Your task to perform on an android device: turn off notifications in google photos Image 0: 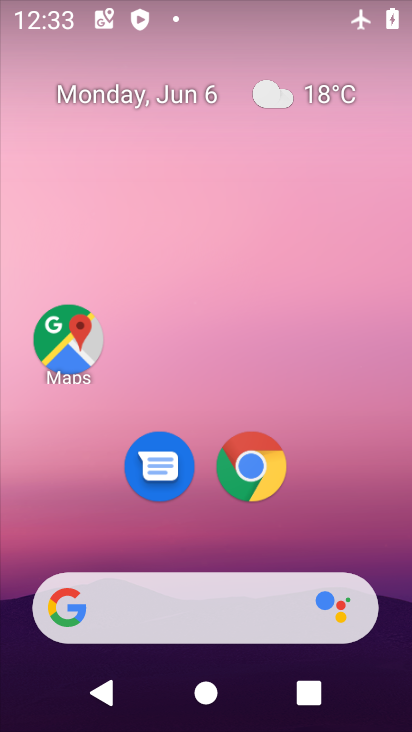
Step 0: drag from (357, 563) to (259, 15)
Your task to perform on an android device: turn off notifications in google photos Image 1: 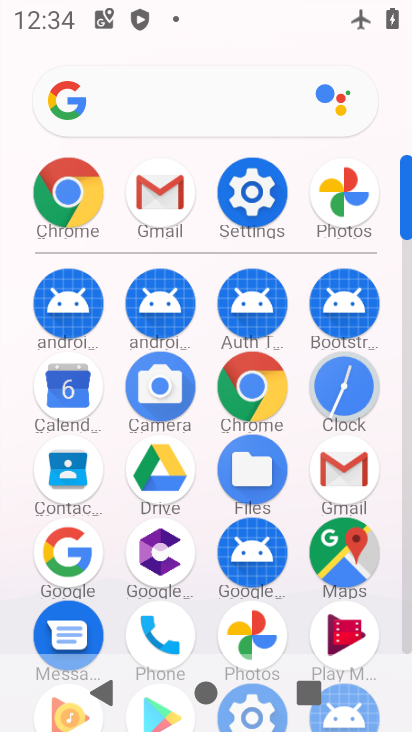
Step 1: click (254, 624)
Your task to perform on an android device: turn off notifications in google photos Image 2: 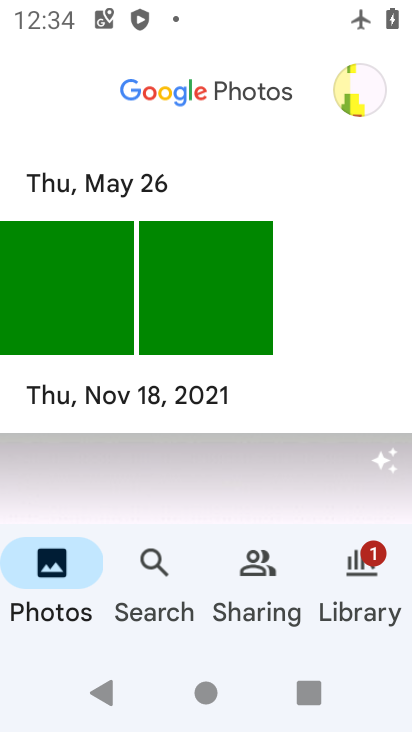
Step 2: click (366, 595)
Your task to perform on an android device: turn off notifications in google photos Image 3: 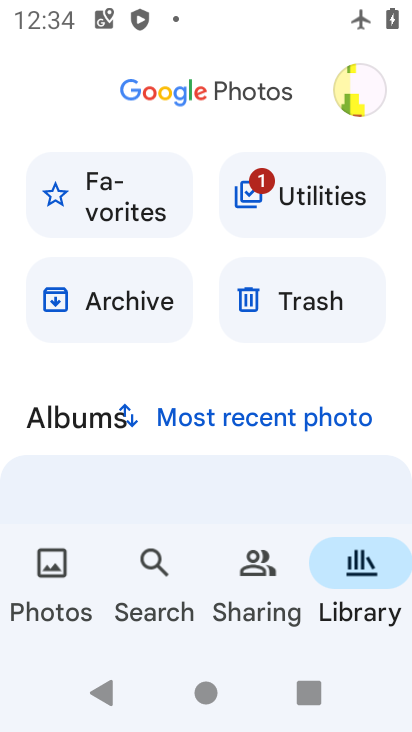
Step 3: click (358, 78)
Your task to perform on an android device: turn off notifications in google photos Image 4: 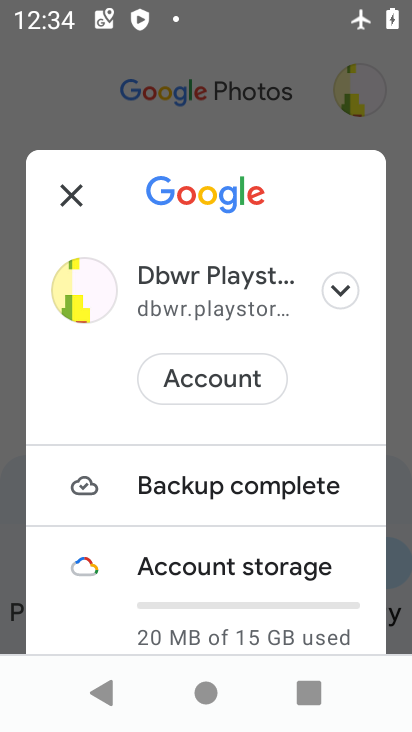
Step 4: drag from (291, 548) to (285, 214)
Your task to perform on an android device: turn off notifications in google photos Image 5: 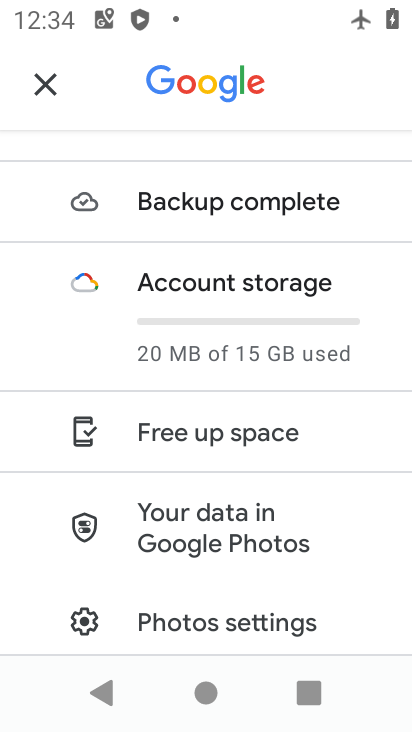
Step 5: drag from (220, 535) to (280, 239)
Your task to perform on an android device: turn off notifications in google photos Image 6: 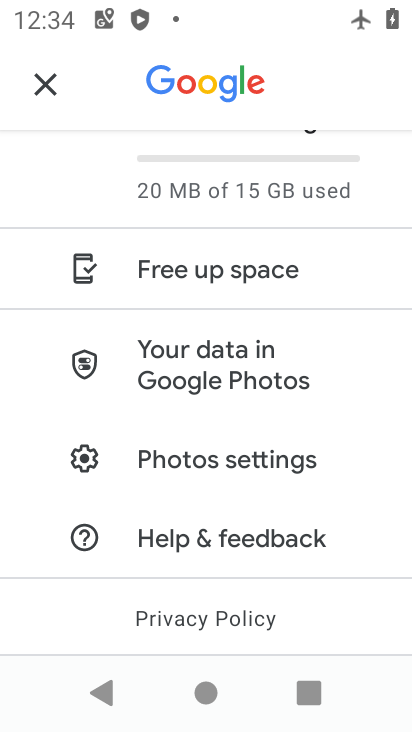
Step 6: click (212, 447)
Your task to perform on an android device: turn off notifications in google photos Image 7: 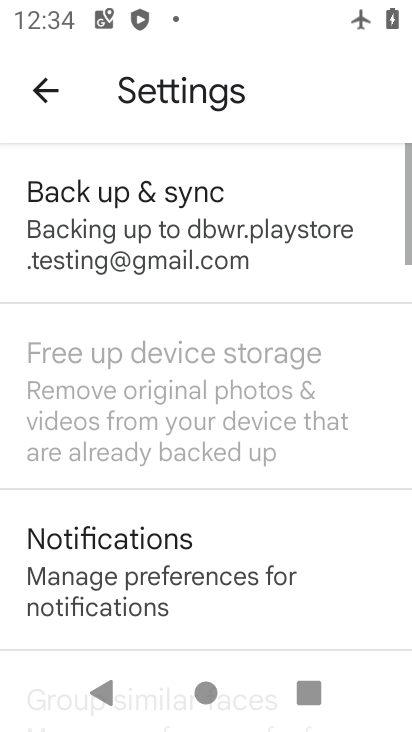
Step 7: click (238, 558)
Your task to perform on an android device: turn off notifications in google photos Image 8: 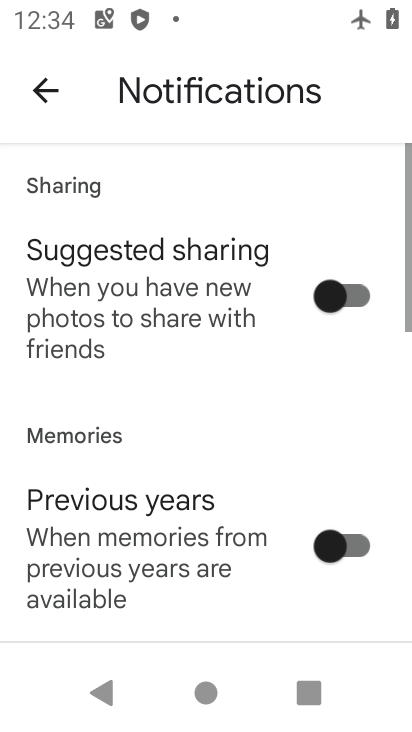
Step 8: drag from (237, 537) to (214, 109)
Your task to perform on an android device: turn off notifications in google photos Image 9: 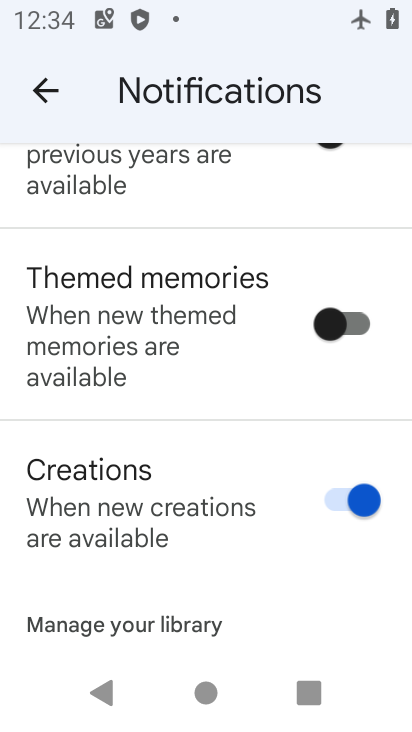
Step 9: drag from (161, 533) to (191, 167)
Your task to perform on an android device: turn off notifications in google photos Image 10: 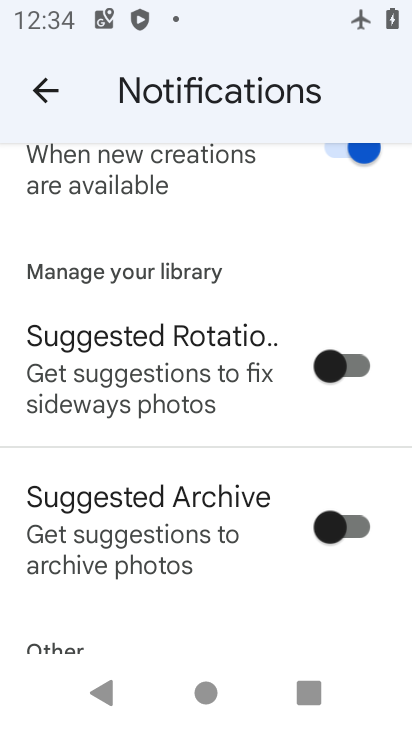
Step 10: drag from (147, 589) to (212, 184)
Your task to perform on an android device: turn off notifications in google photos Image 11: 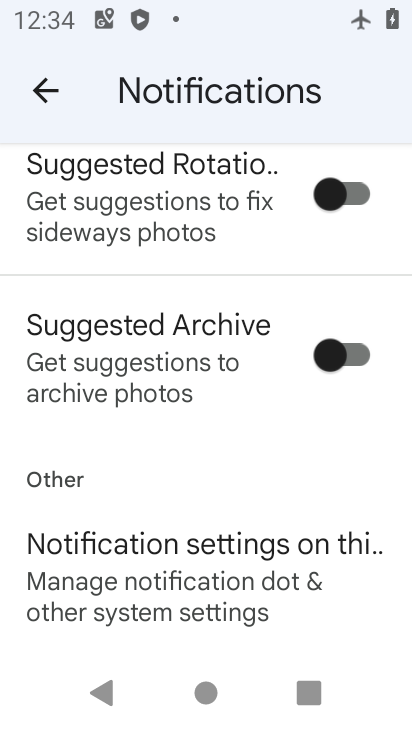
Step 11: click (169, 562)
Your task to perform on an android device: turn off notifications in google photos Image 12: 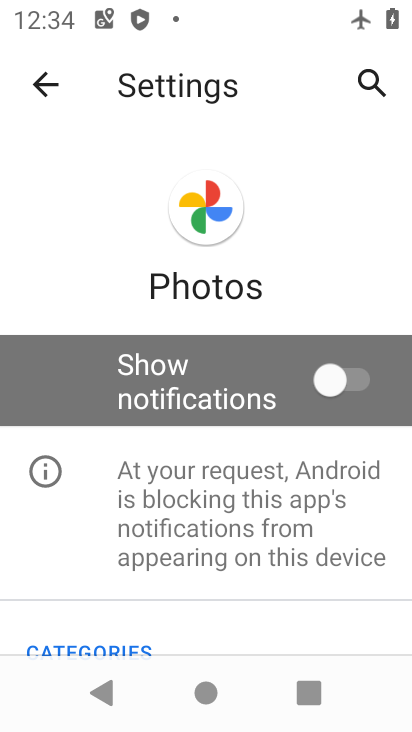
Step 12: task complete